Your task to perform on an android device: Open settings Image 0: 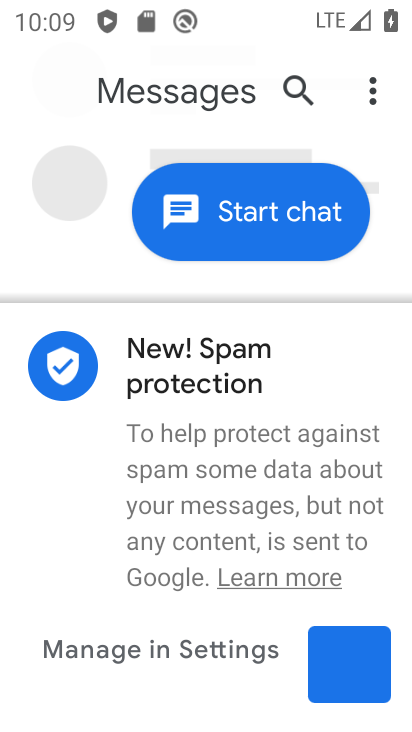
Step 0: press home button
Your task to perform on an android device: Open settings Image 1: 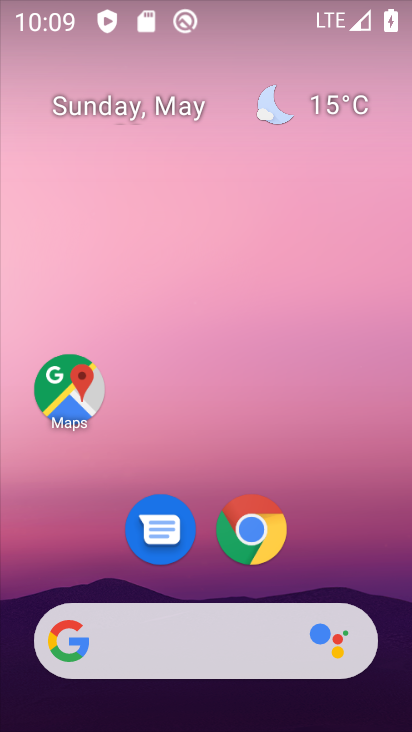
Step 1: drag from (154, 606) to (325, 5)
Your task to perform on an android device: Open settings Image 2: 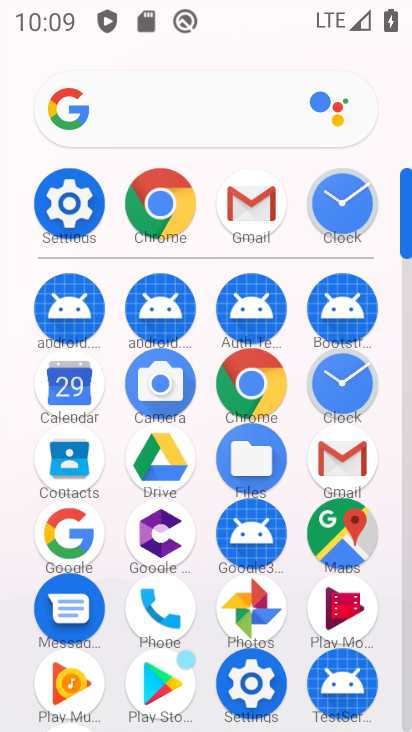
Step 2: click (64, 192)
Your task to perform on an android device: Open settings Image 3: 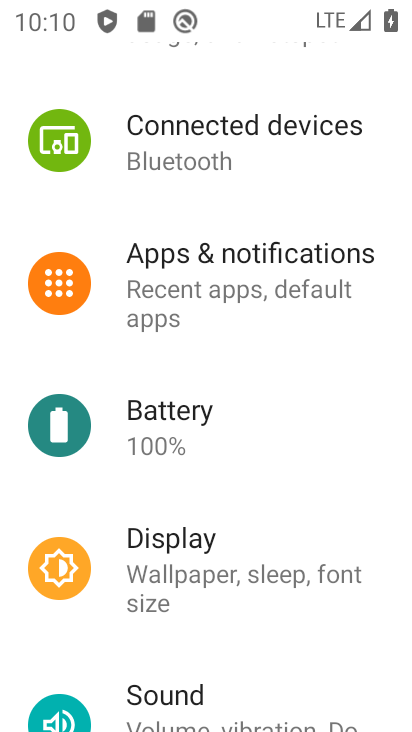
Step 3: task complete